Your task to perform on an android device: open app "Facebook Messenger" Image 0: 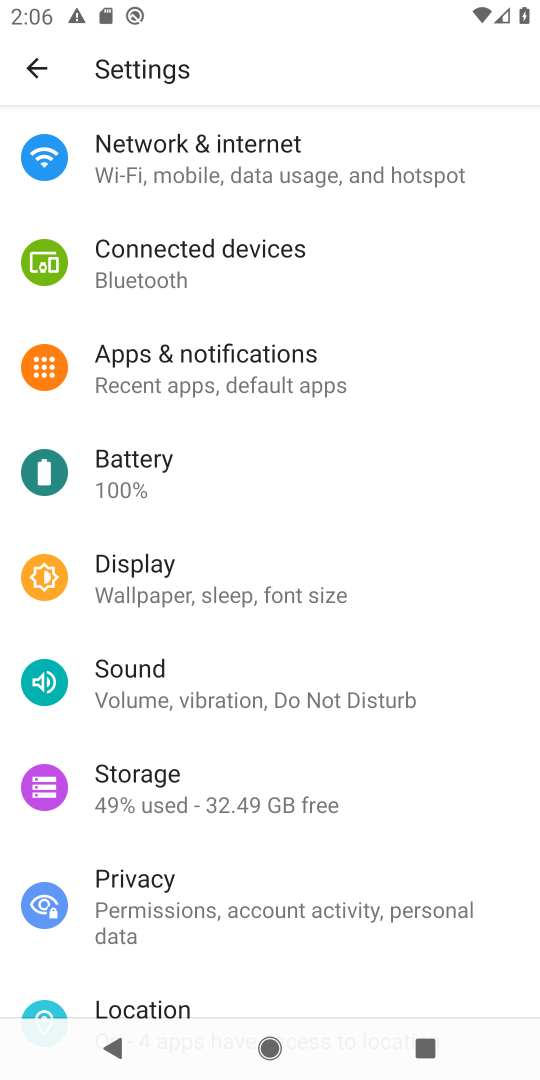
Step 0: press home button
Your task to perform on an android device: open app "Facebook Messenger" Image 1: 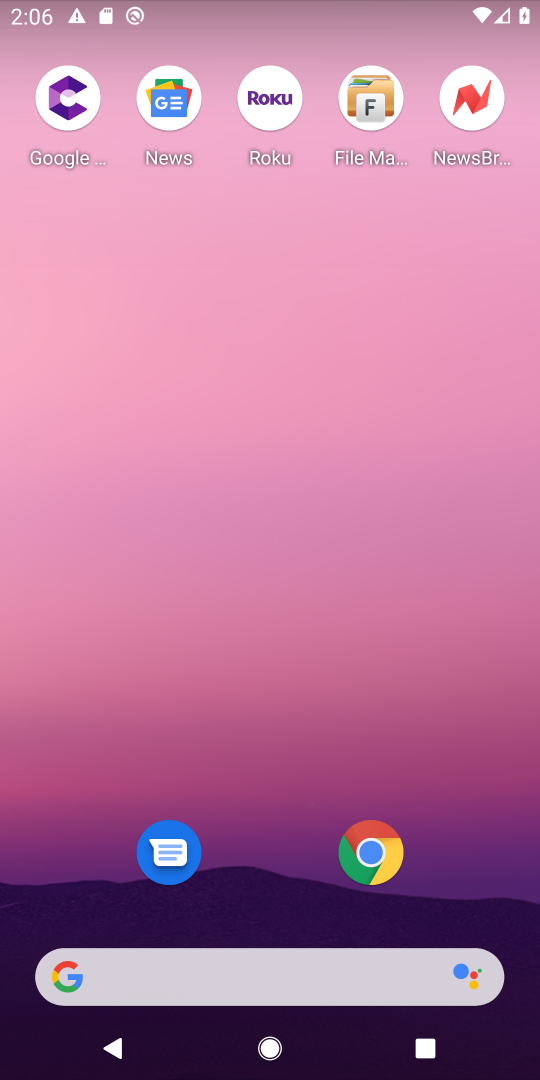
Step 1: drag from (240, 937) to (253, 32)
Your task to perform on an android device: open app "Facebook Messenger" Image 2: 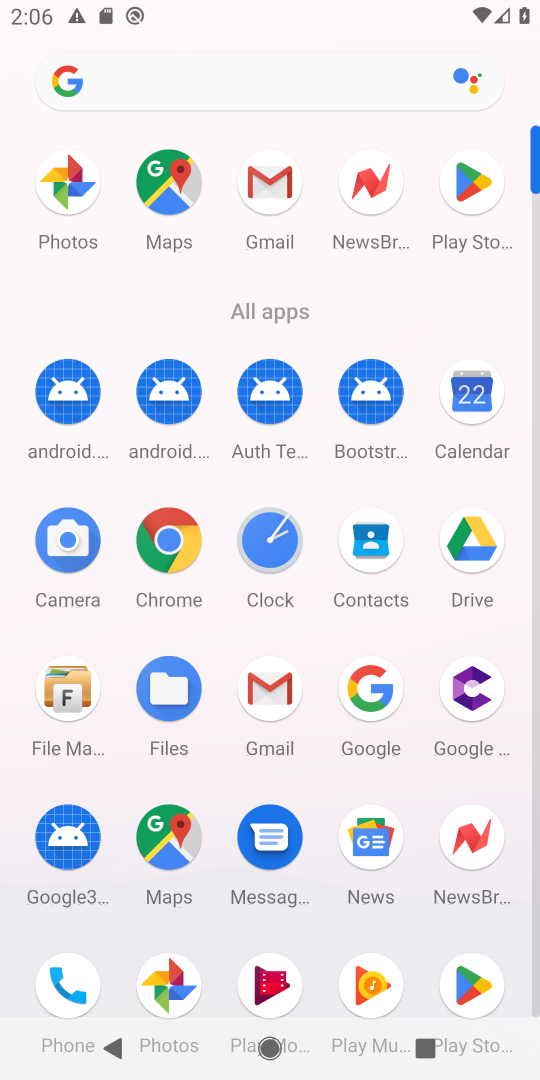
Step 2: click (469, 184)
Your task to perform on an android device: open app "Facebook Messenger" Image 3: 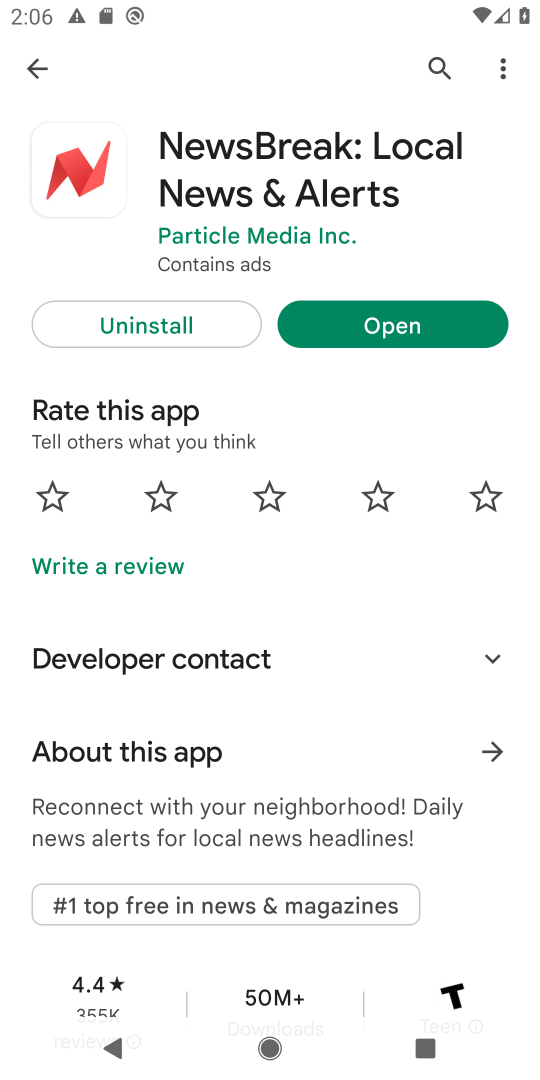
Step 3: click (431, 67)
Your task to perform on an android device: open app "Facebook Messenger" Image 4: 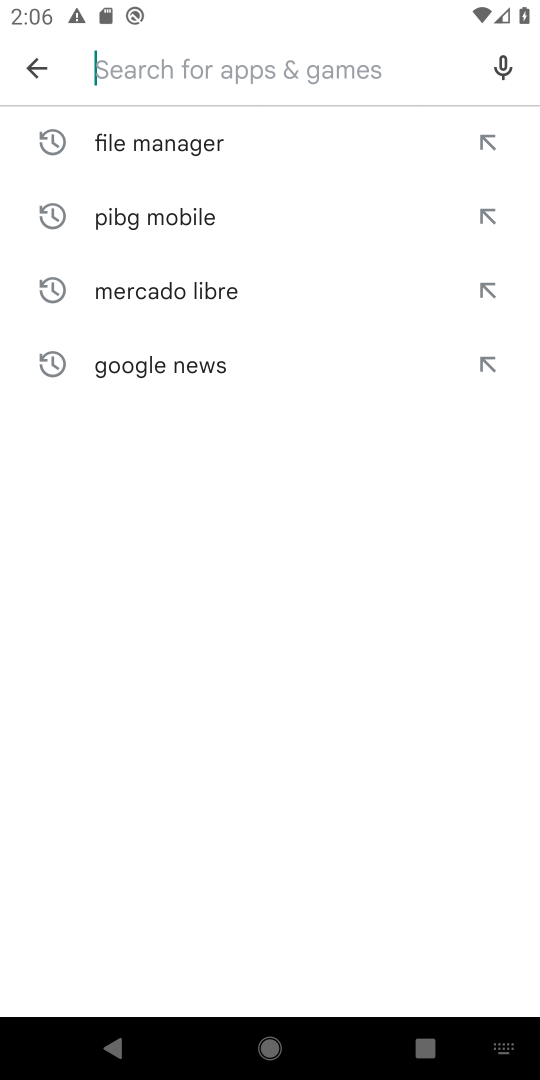
Step 4: type "Facebook Messenger"
Your task to perform on an android device: open app "Facebook Messenger" Image 5: 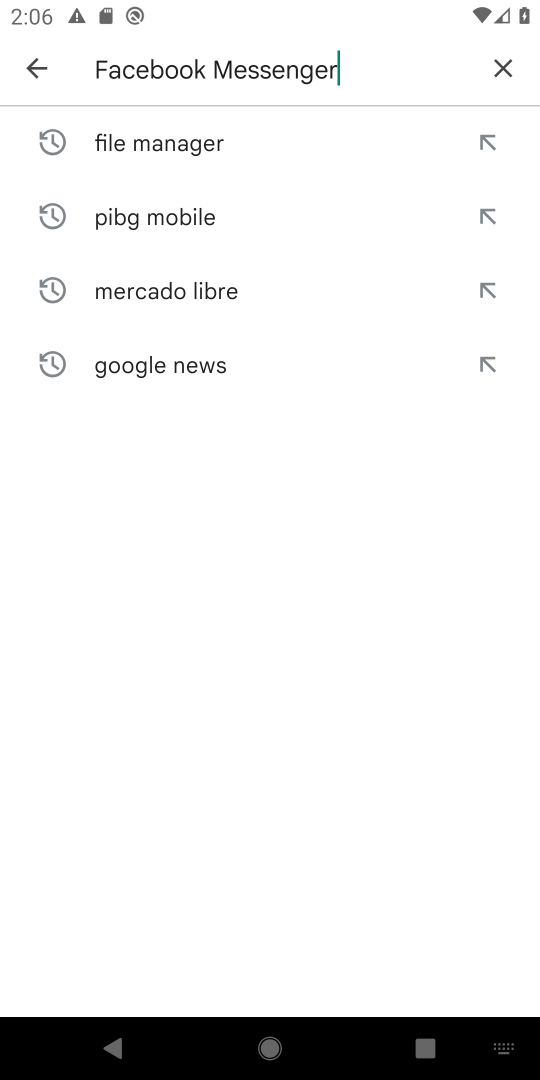
Step 5: type ""
Your task to perform on an android device: open app "Facebook Messenger" Image 6: 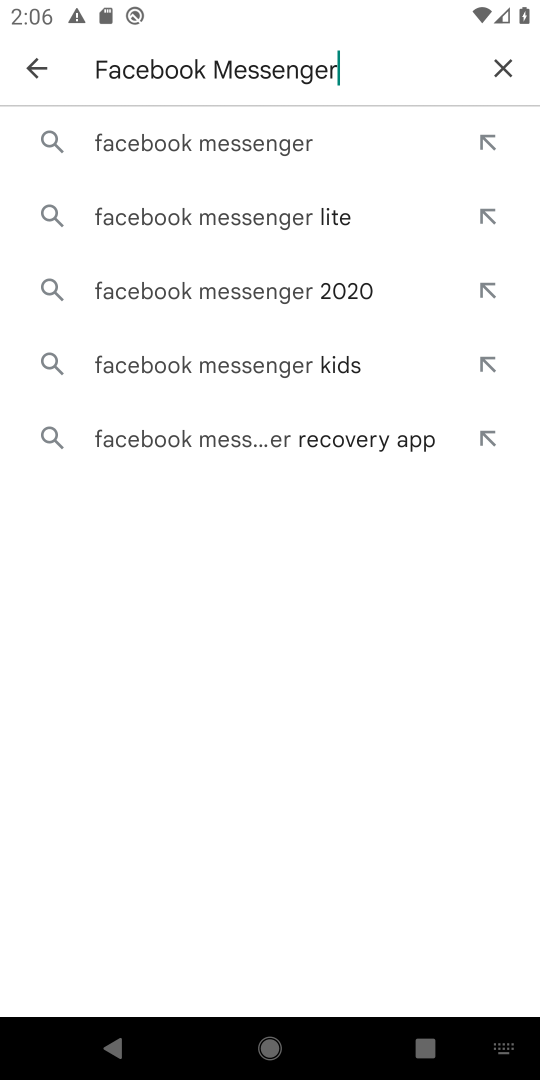
Step 6: click (228, 146)
Your task to perform on an android device: open app "Facebook Messenger" Image 7: 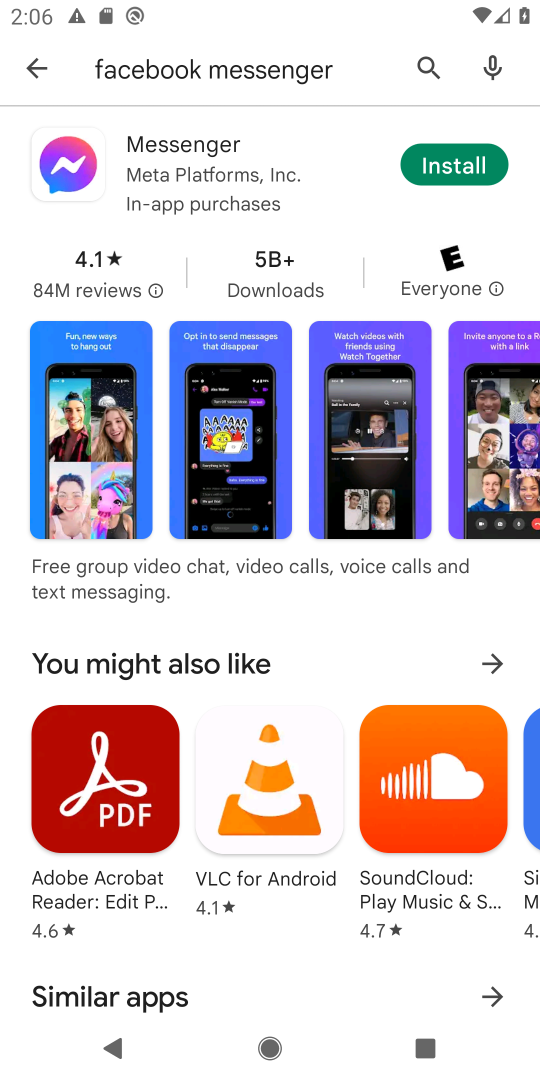
Step 7: task complete